Your task to perform on an android device: clear history in the chrome app Image 0: 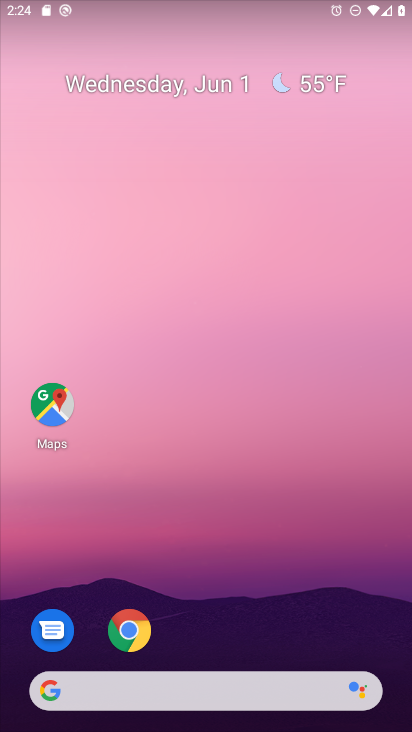
Step 0: drag from (321, 672) to (349, 45)
Your task to perform on an android device: clear history in the chrome app Image 1: 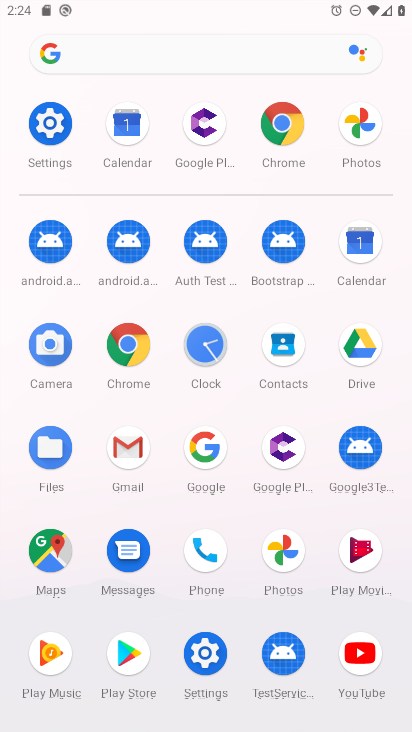
Step 1: click (141, 356)
Your task to perform on an android device: clear history in the chrome app Image 2: 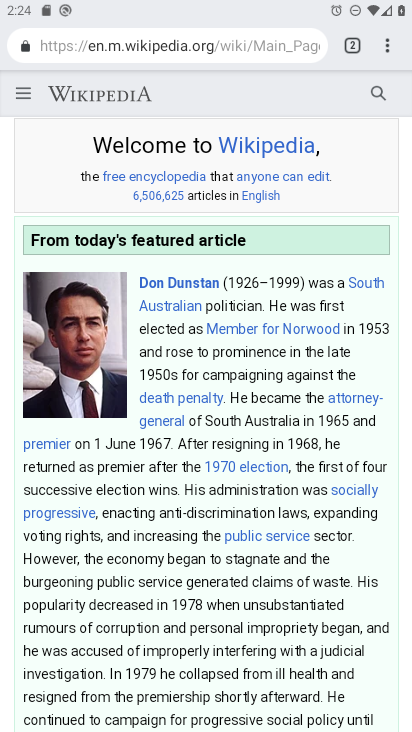
Step 2: drag from (384, 35) to (228, 257)
Your task to perform on an android device: clear history in the chrome app Image 3: 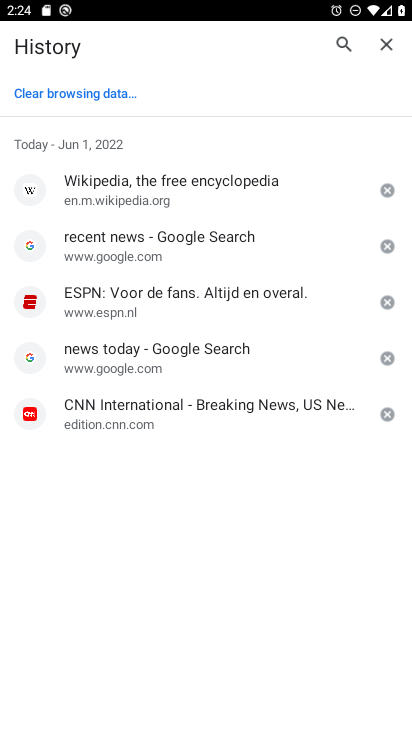
Step 3: click (121, 93)
Your task to perform on an android device: clear history in the chrome app Image 4: 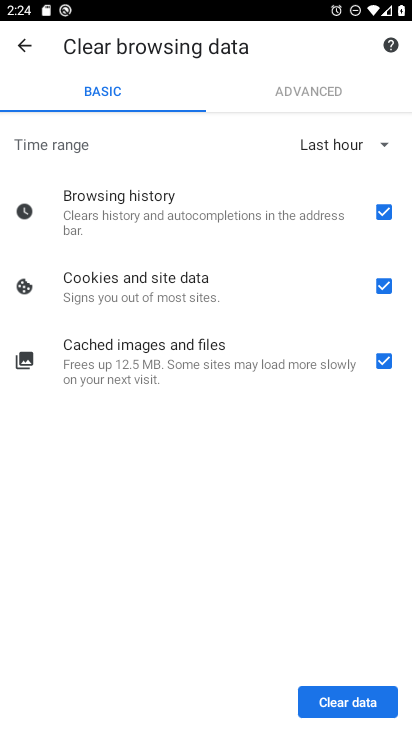
Step 4: click (389, 702)
Your task to perform on an android device: clear history in the chrome app Image 5: 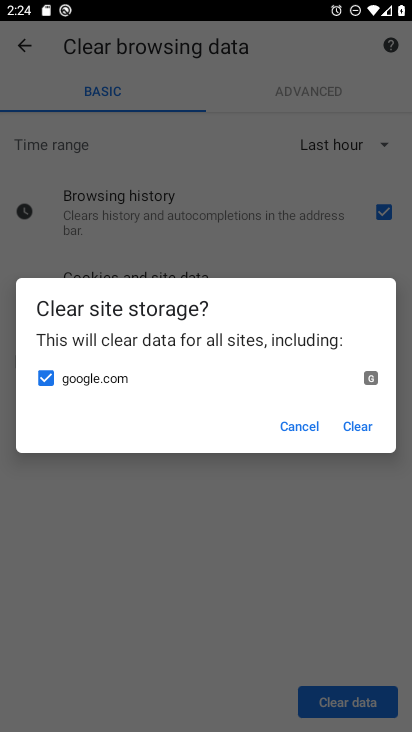
Step 5: click (350, 435)
Your task to perform on an android device: clear history in the chrome app Image 6: 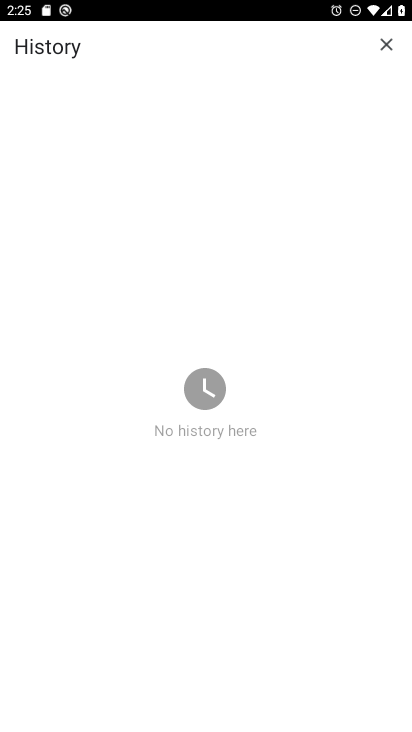
Step 6: task complete